Your task to perform on an android device: Open Google Chrome and click the shortcut for Amazon.com Image 0: 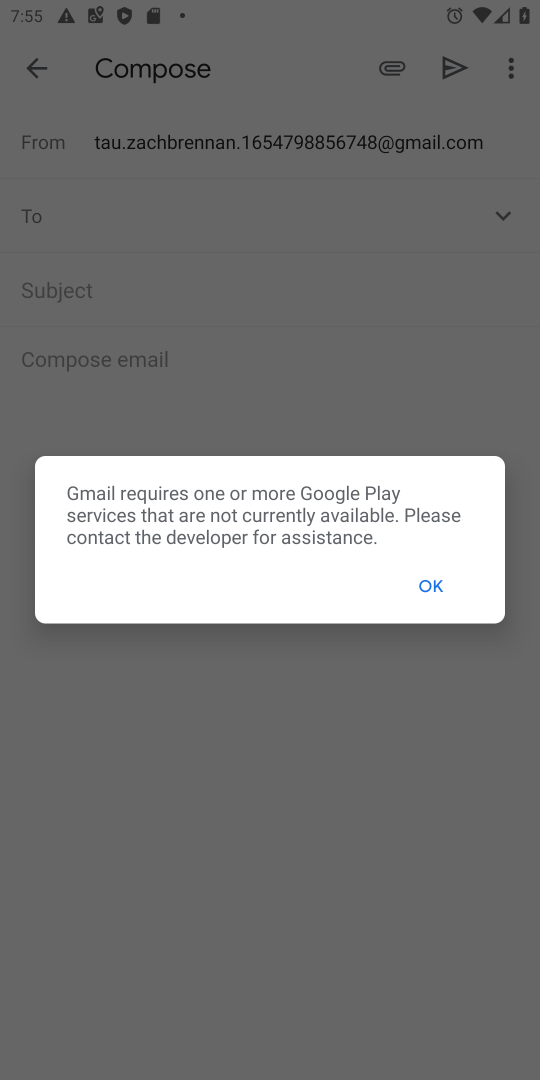
Step 0: press home button
Your task to perform on an android device: Open Google Chrome and click the shortcut for Amazon.com Image 1: 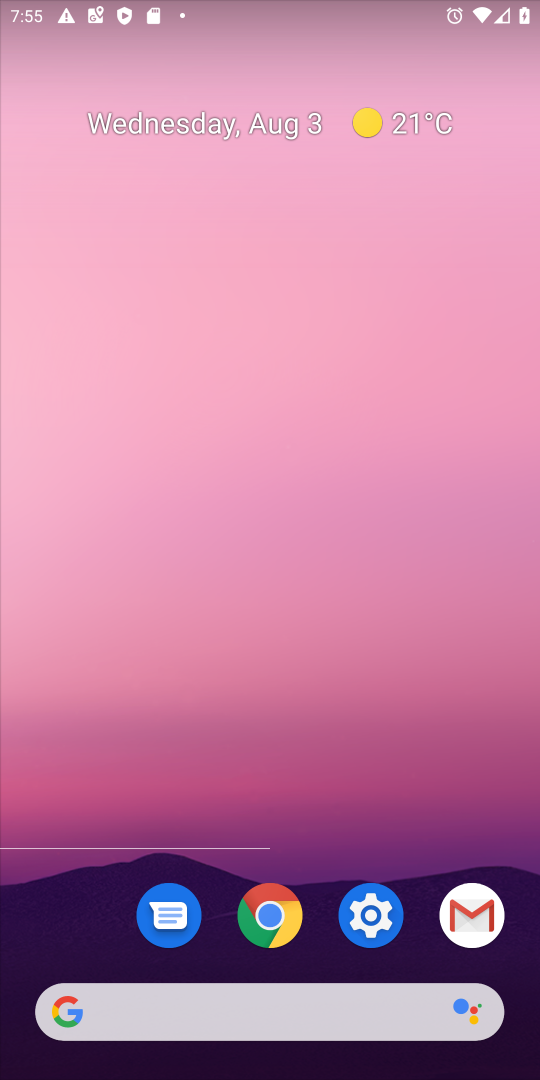
Step 1: drag from (344, 1034) to (209, 308)
Your task to perform on an android device: Open Google Chrome and click the shortcut for Amazon.com Image 2: 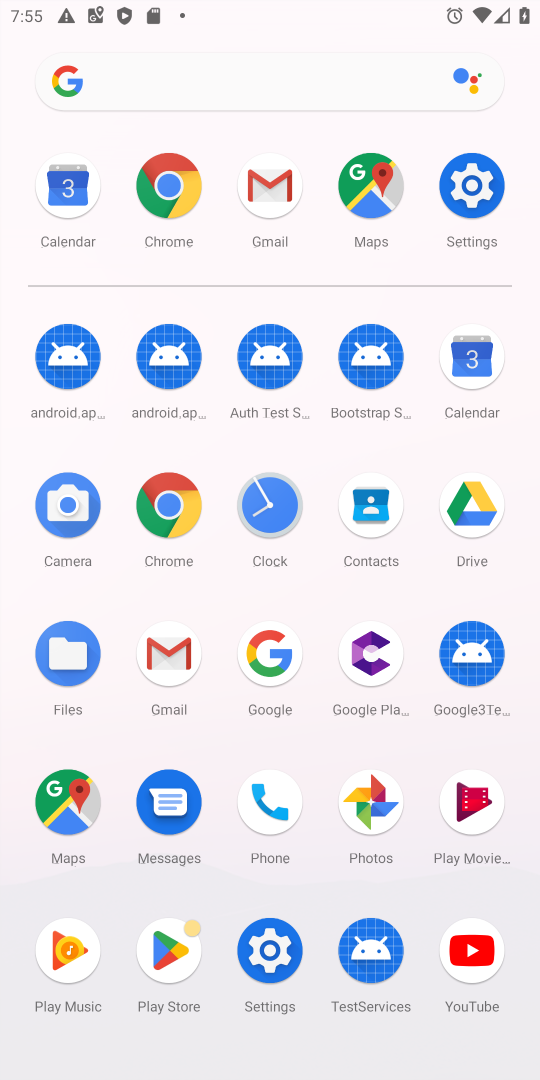
Step 2: click (181, 496)
Your task to perform on an android device: Open Google Chrome and click the shortcut for Amazon.com Image 3: 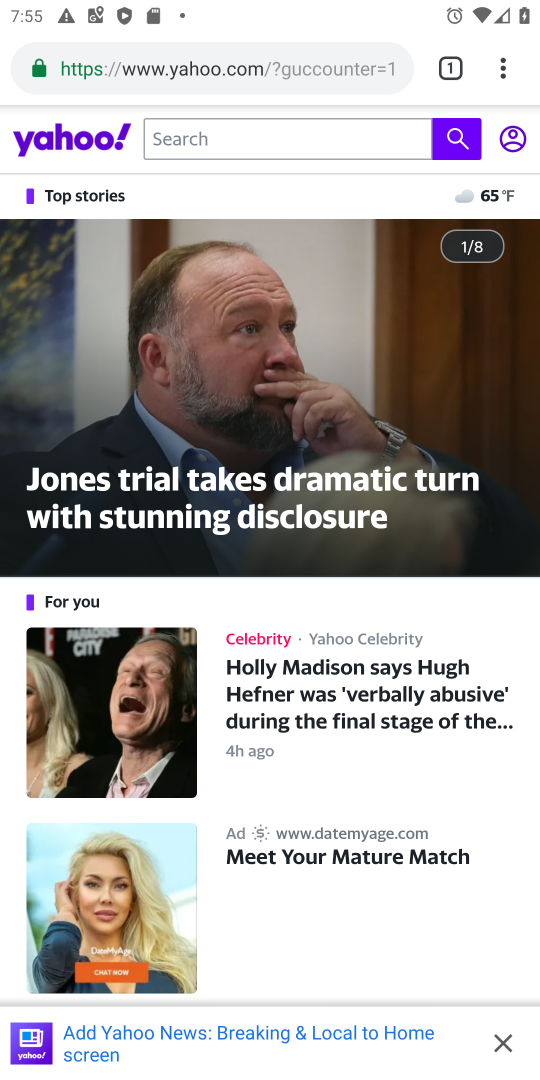
Step 3: click (495, 77)
Your task to perform on an android device: Open Google Chrome and click the shortcut for Amazon.com Image 4: 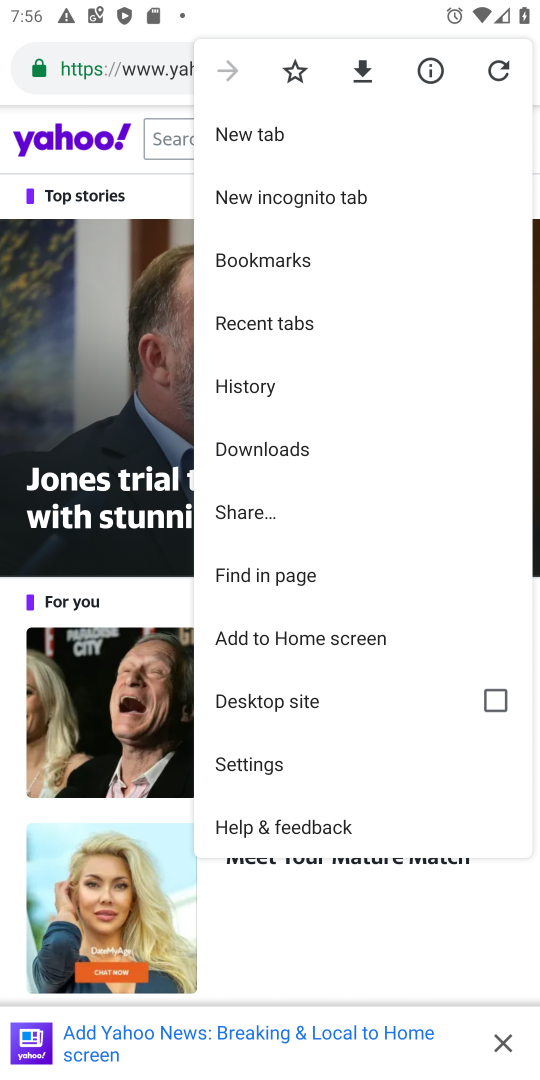
Step 4: click (286, 130)
Your task to perform on an android device: Open Google Chrome and click the shortcut for Amazon.com Image 5: 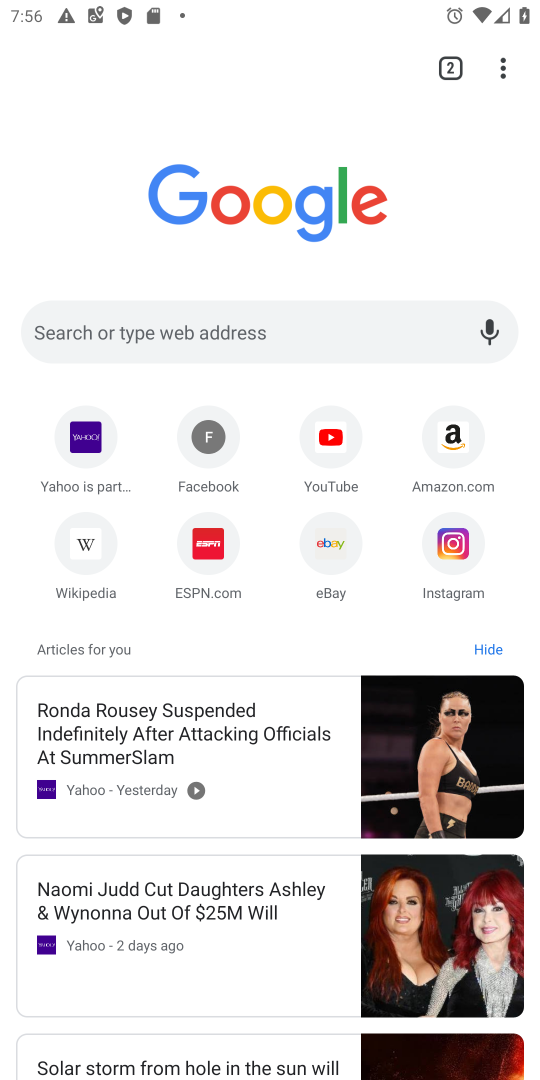
Step 5: click (466, 430)
Your task to perform on an android device: Open Google Chrome and click the shortcut for Amazon.com Image 6: 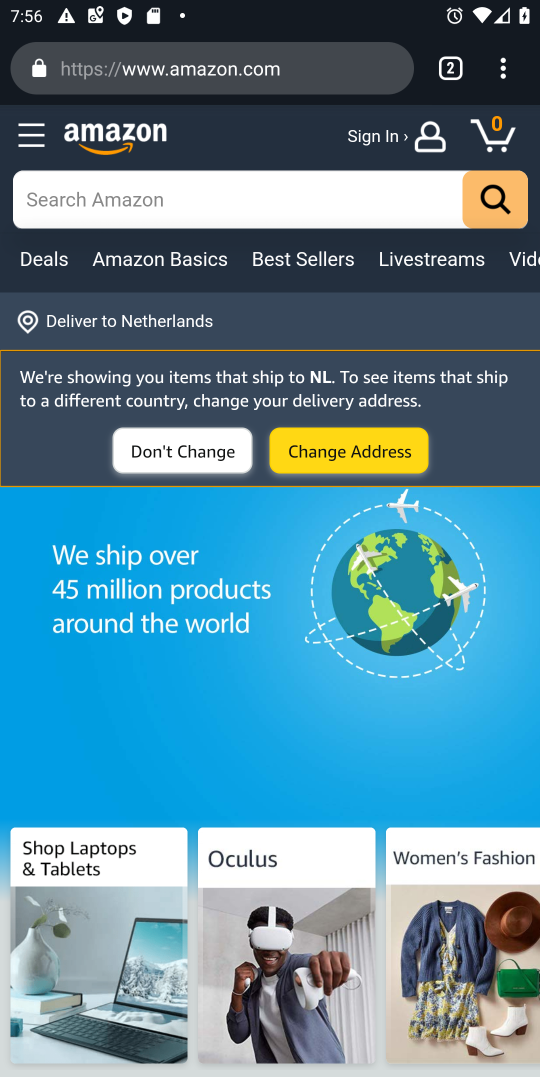
Step 6: click (505, 79)
Your task to perform on an android device: Open Google Chrome and click the shortcut for Amazon.com Image 7: 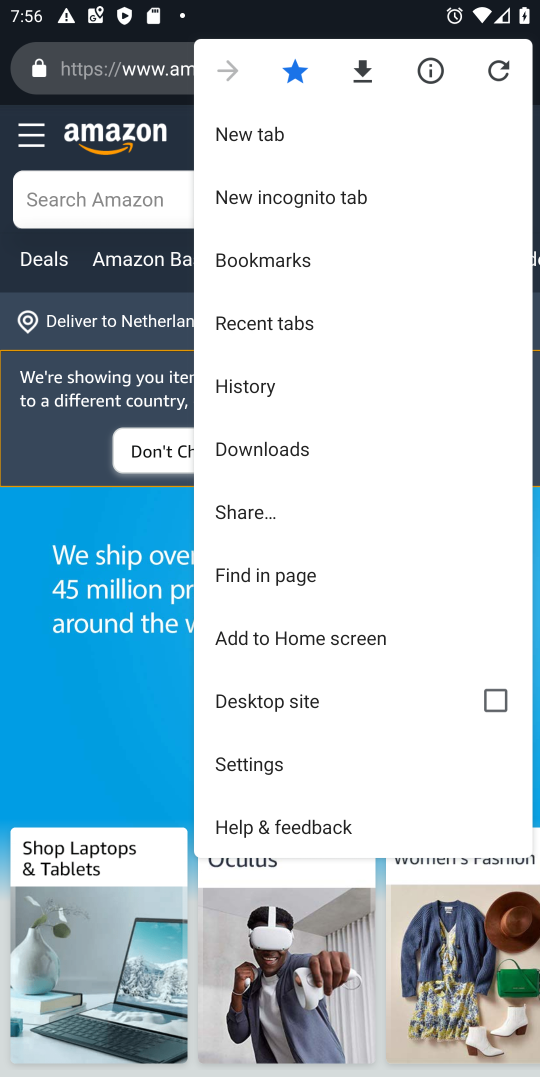
Step 7: click (300, 641)
Your task to perform on an android device: Open Google Chrome and click the shortcut for Amazon.com Image 8: 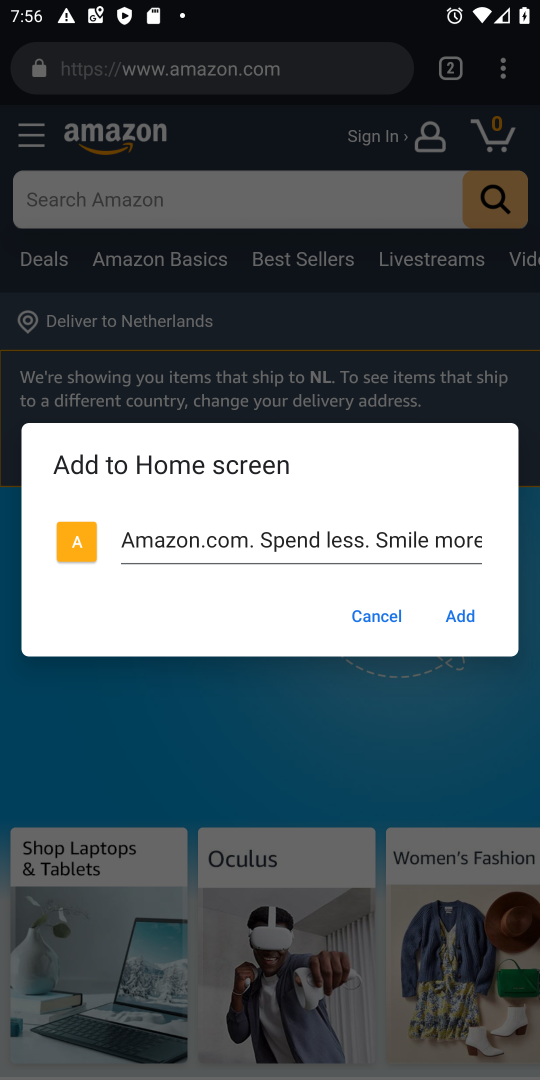
Step 8: click (436, 619)
Your task to perform on an android device: Open Google Chrome and click the shortcut for Amazon.com Image 9: 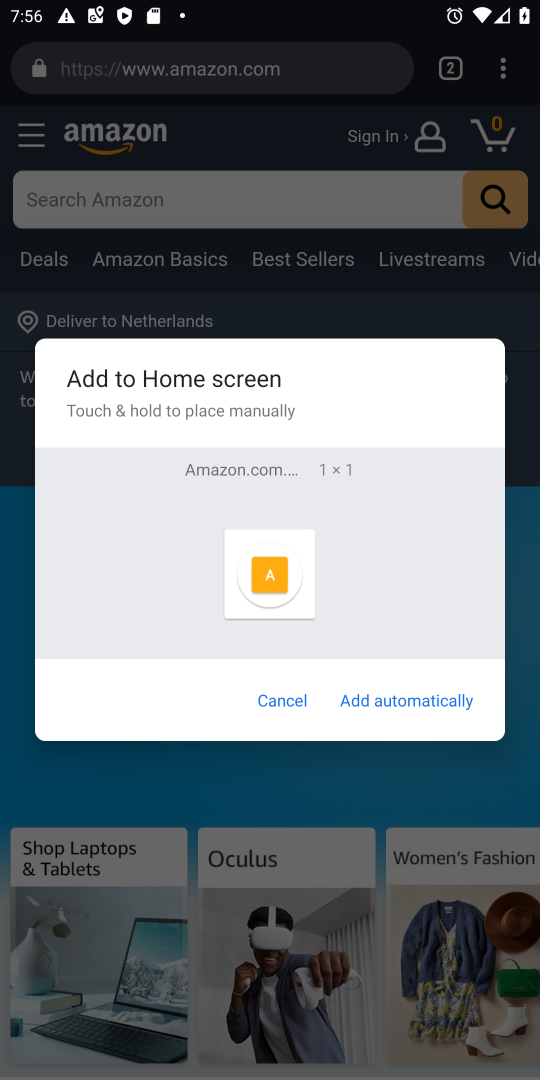
Step 9: click (421, 695)
Your task to perform on an android device: Open Google Chrome and click the shortcut for Amazon.com Image 10: 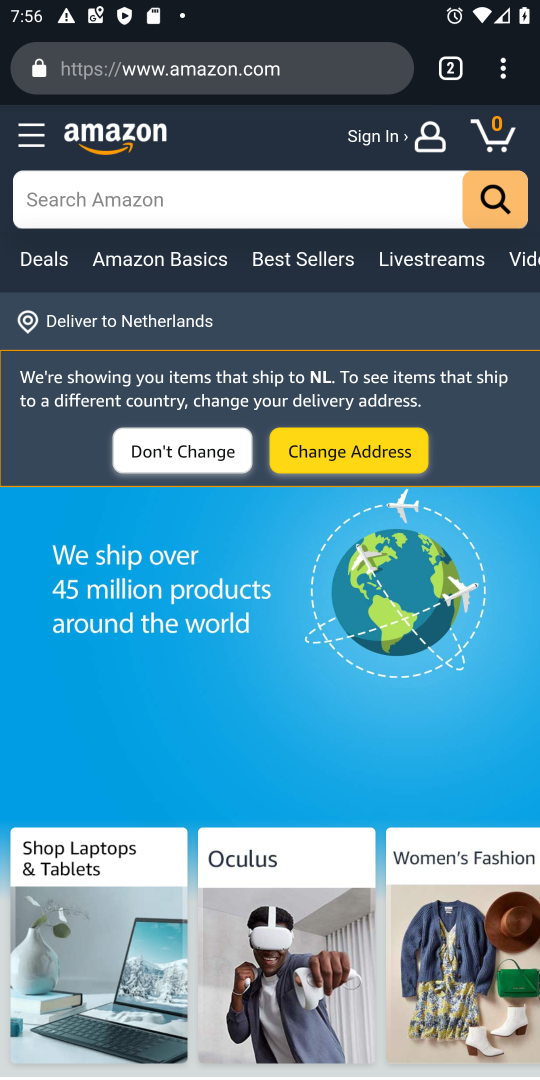
Step 10: task complete